Your task to perform on an android device: Play the latest video from the Wall Street Journal Image 0: 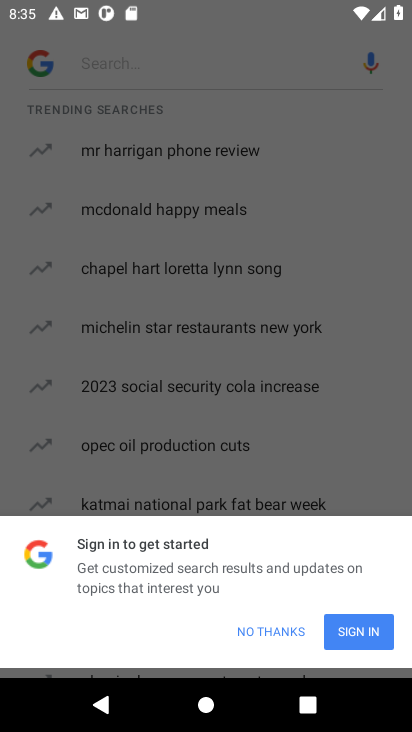
Step 0: click (268, 626)
Your task to perform on an android device: Play the latest video from the Wall Street Journal Image 1: 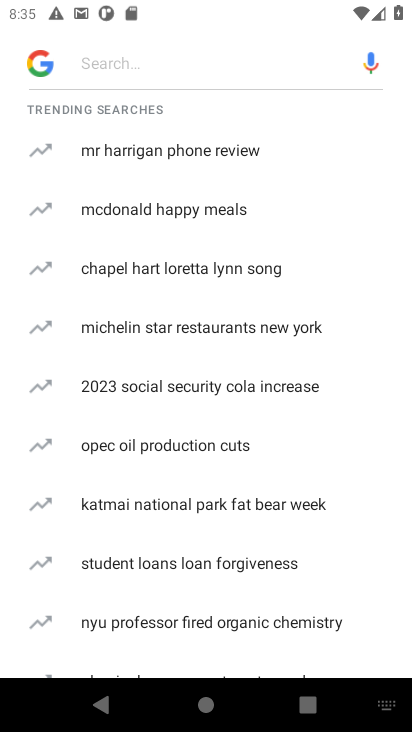
Step 1: press home button
Your task to perform on an android device: Play the latest video from the Wall Street Journal Image 2: 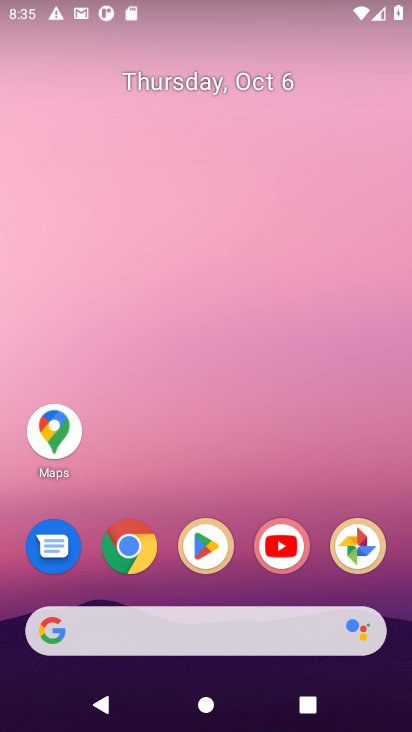
Step 2: click (282, 543)
Your task to perform on an android device: Play the latest video from the Wall Street Journal Image 3: 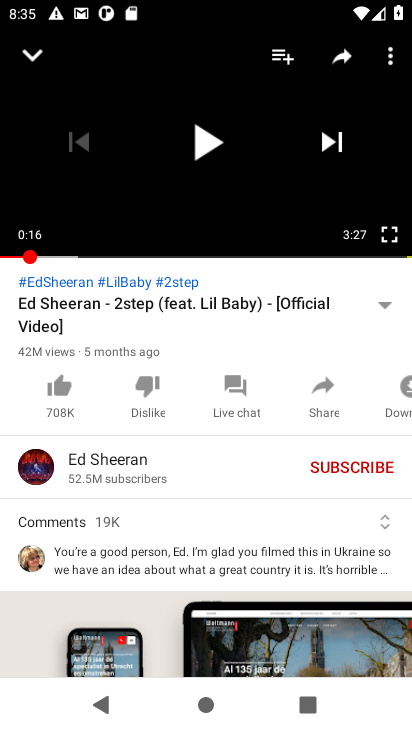
Step 3: click (38, 56)
Your task to perform on an android device: Play the latest video from the Wall Street Journal Image 4: 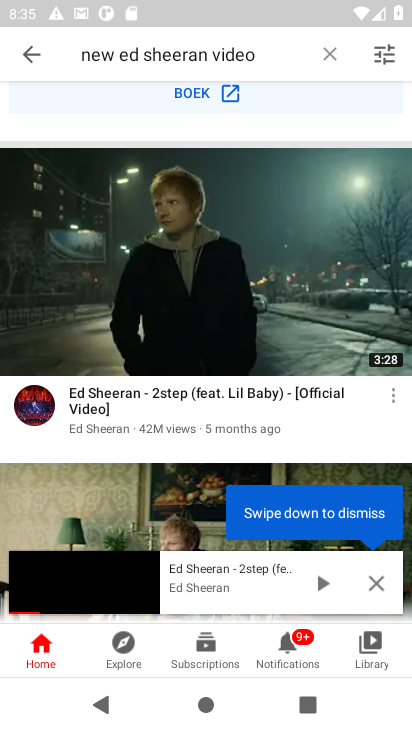
Step 4: click (329, 52)
Your task to perform on an android device: Play the latest video from the Wall Street Journal Image 5: 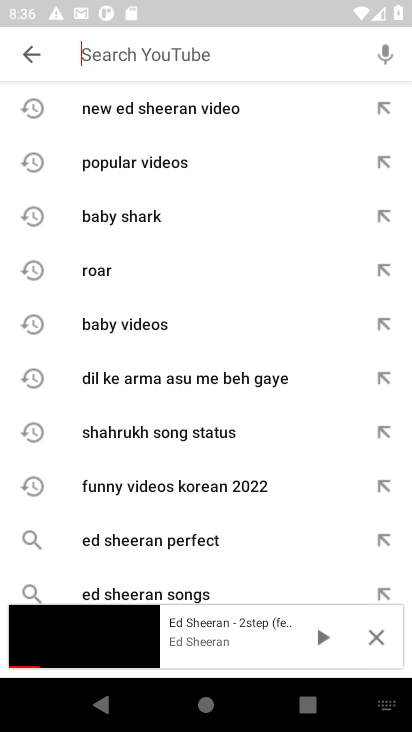
Step 5: type "wall street journal"
Your task to perform on an android device: Play the latest video from the Wall Street Journal Image 6: 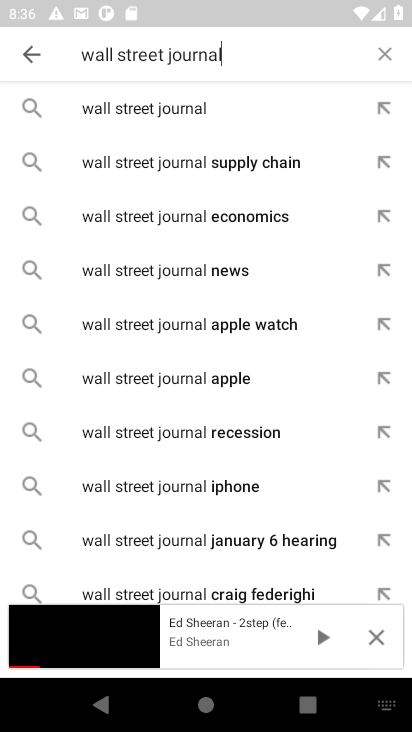
Step 6: click (112, 99)
Your task to perform on an android device: Play the latest video from the Wall Street Journal Image 7: 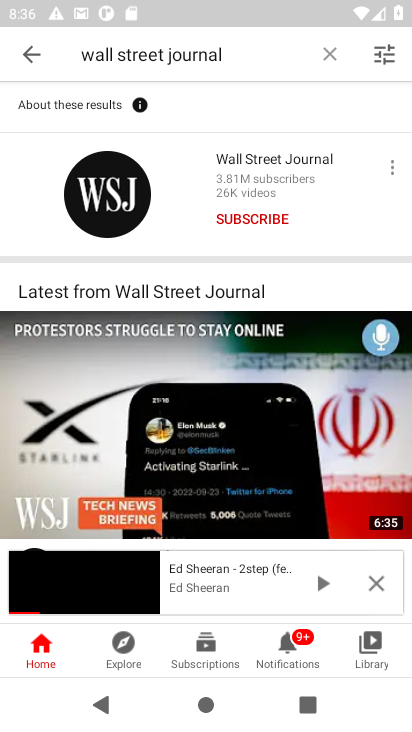
Step 7: click (258, 166)
Your task to perform on an android device: Play the latest video from the Wall Street Journal Image 8: 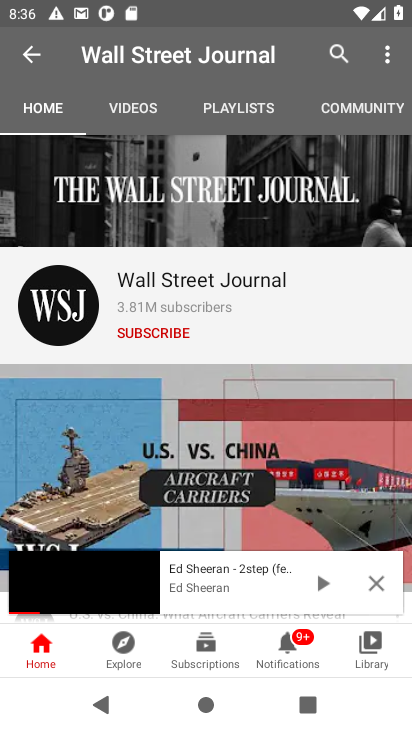
Step 8: click (120, 106)
Your task to perform on an android device: Play the latest video from the Wall Street Journal Image 9: 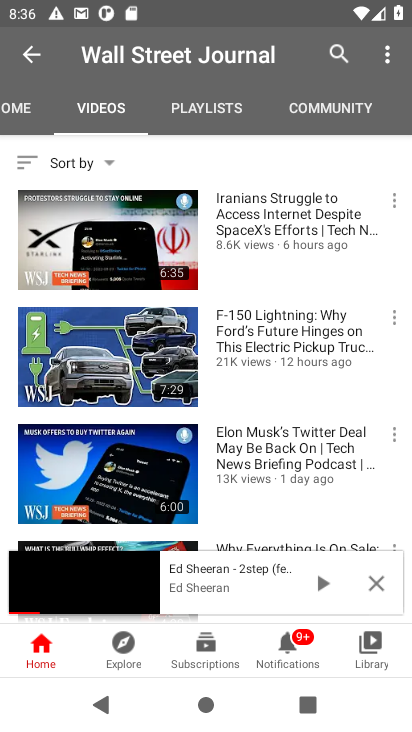
Step 9: click (108, 246)
Your task to perform on an android device: Play the latest video from the Wall Street Journal Image 10: 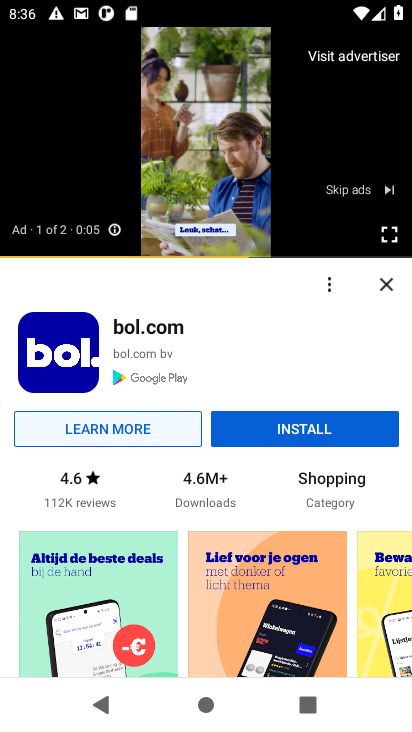
Step 10: click (357, 192)
Your task to perform on an android device: Play the latest video from the Wall Street Journal Image 11: 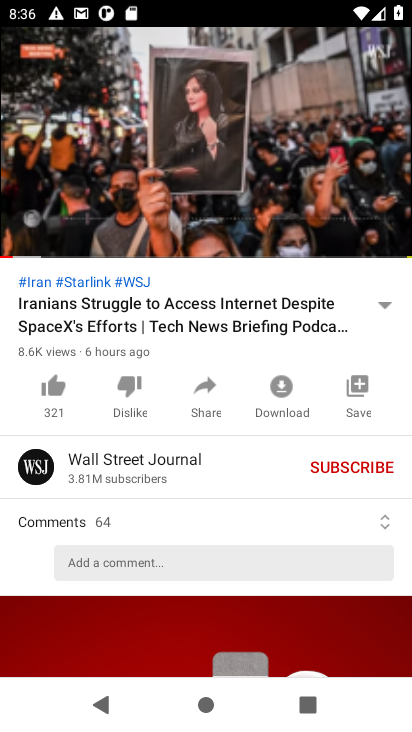
Step 11: click (198, 136)
Your task to perform on an android device: Play the latest video from the Wall Street Journal Image 12: 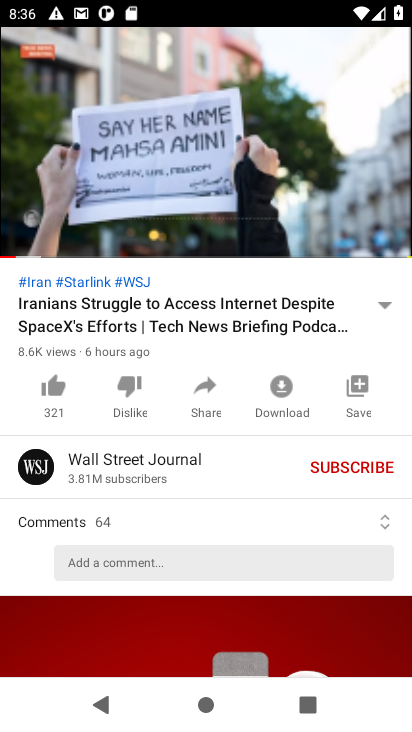
Step 12: click (198, 136)
Your task to perform on an android device: Play the latest video from the Wall Street Journal Image 13: 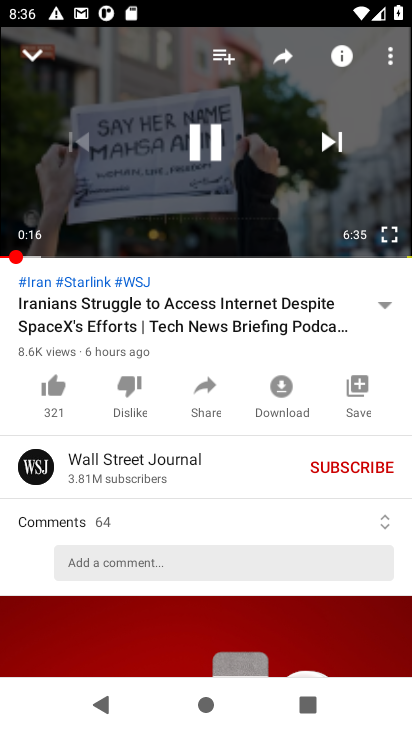
Step 13: click (198, 136)
Your task to perform on an android device: Play the latest video from the Wall Street Journal Image 14: 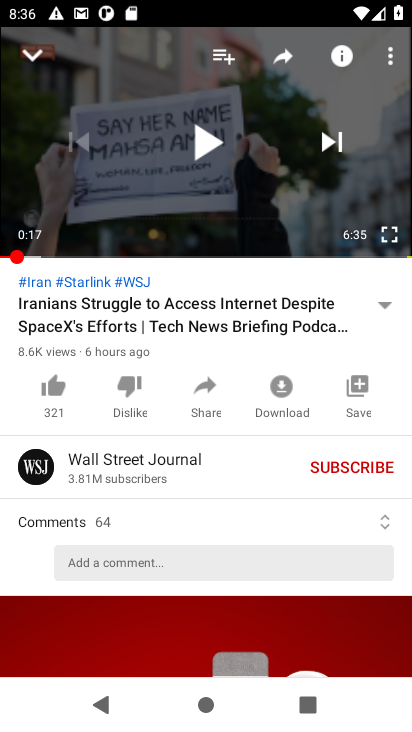
Step 14: task complete